Your task to perform on an android device: Open a new incognito tab in Chrome Image 0: 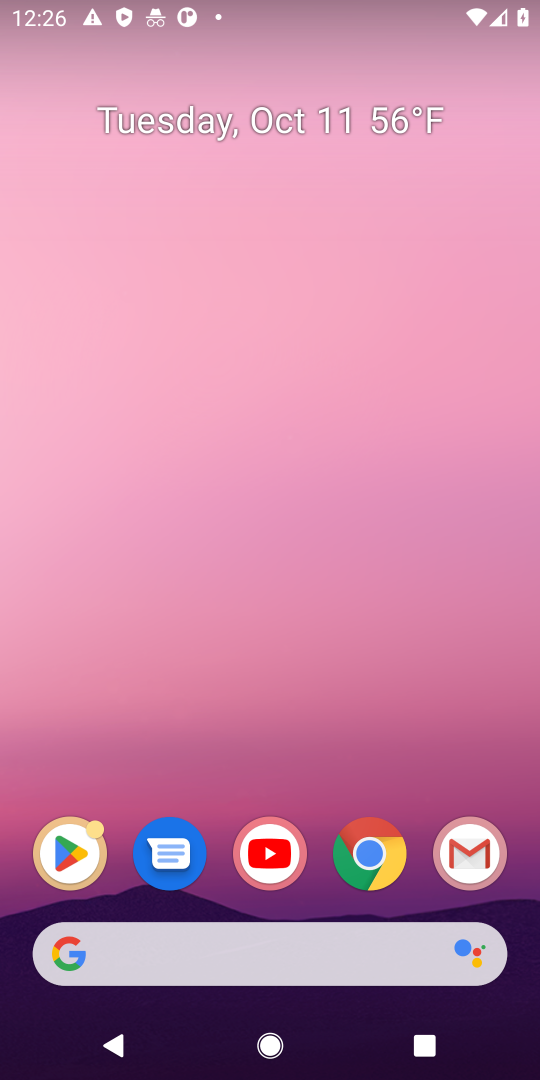
Step 0: drag from (315, 767) to (344, 36)
Your task to perform on an android device: Open a new incognito tab in Chrome Image 1: 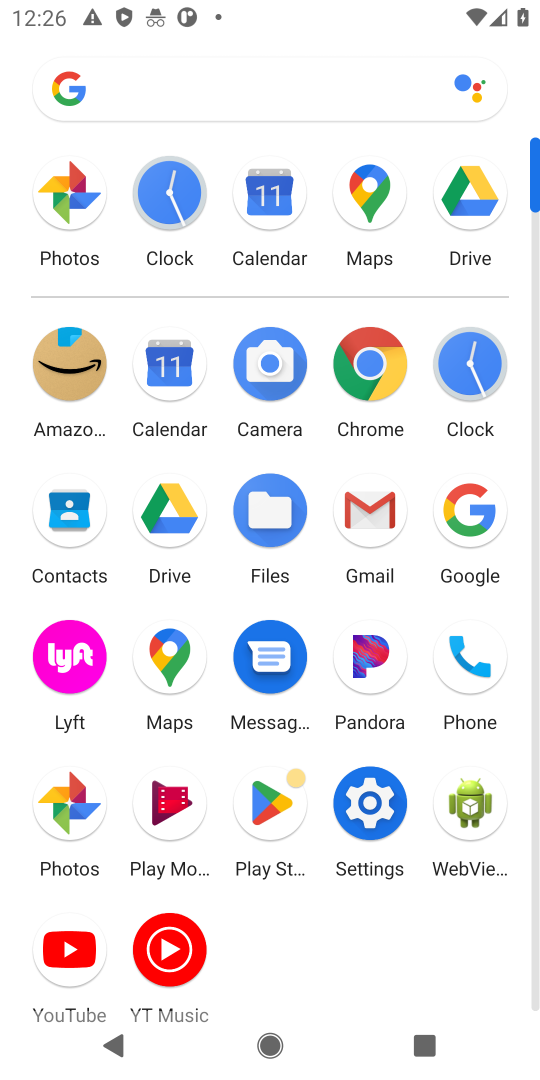
Step 1: click (383, 360)
Your task to perform on an android device: Open a new incognito tab in Chrome Image 2: 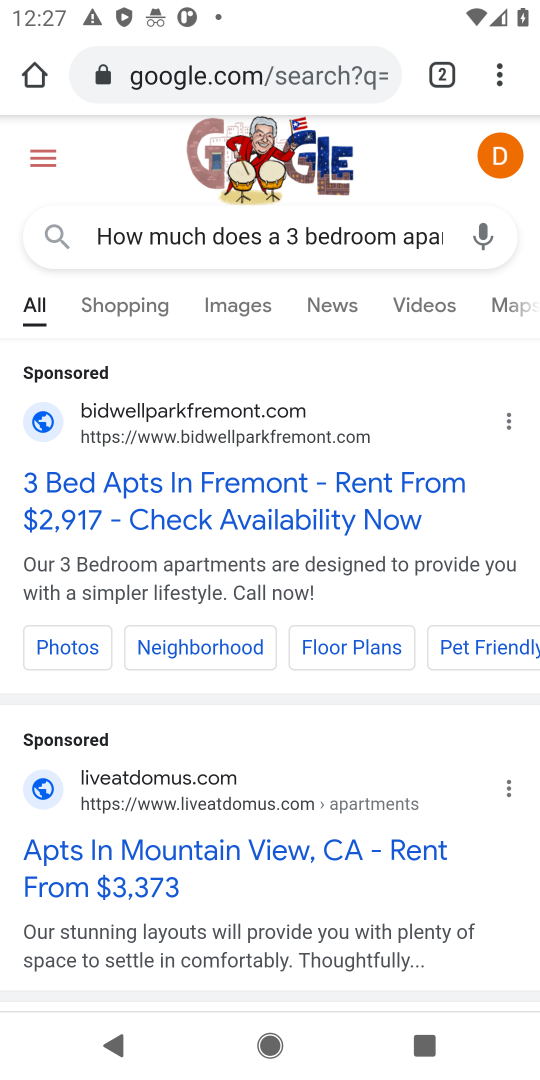
Step 2: click (493, 75)
Your task to perform on an android device: Open a new incognito tab in Chrome Image 3: 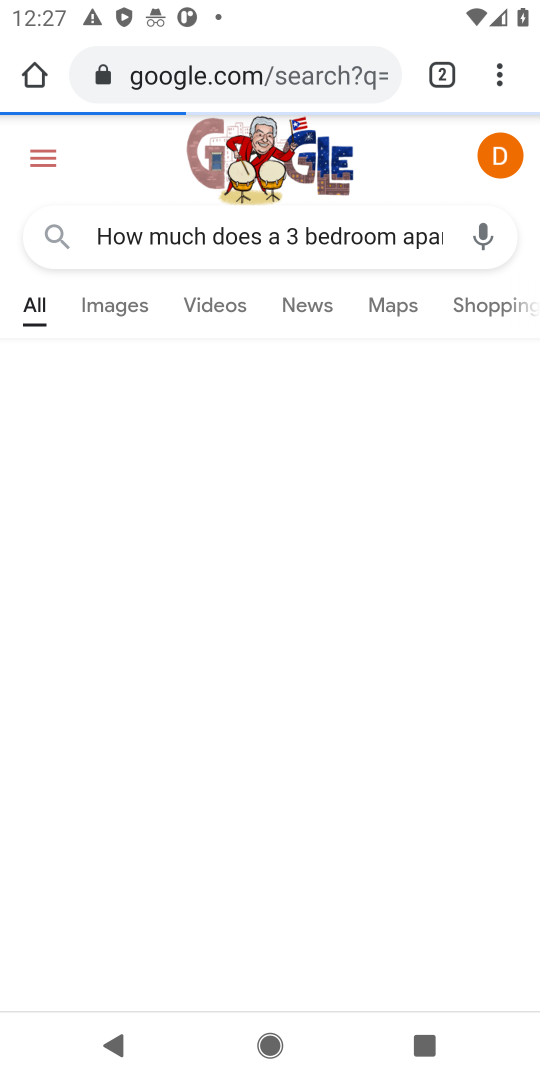
Step 3: task complete